Your task to perform on an android device: Open Youtube and go to the subscriptions tab Image 0: 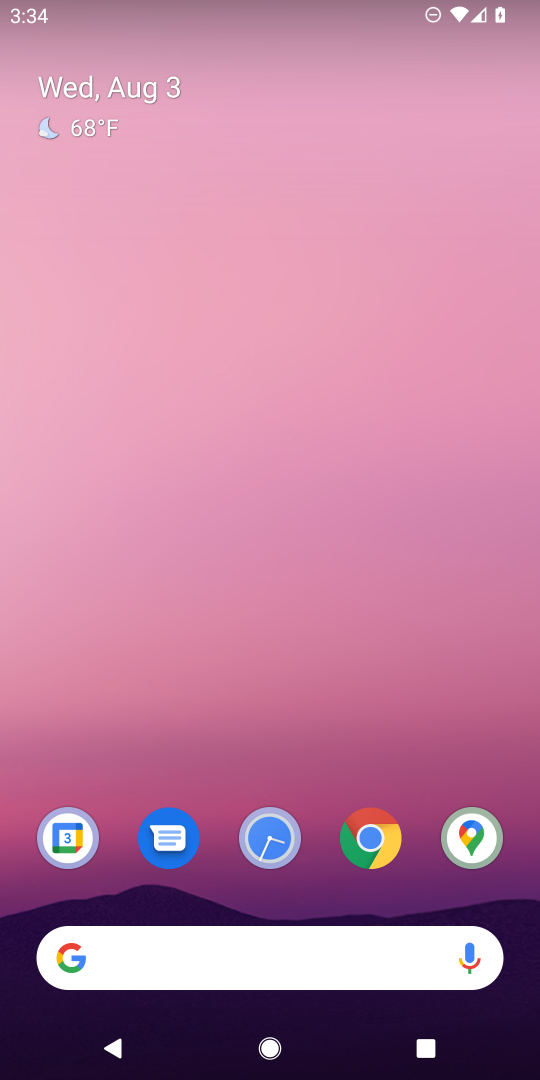
Step 0: drag from (321, 895) to (361, 422)
Your task to perform on an android device: Open Youtube and go to the subscriptions tab Image 1: 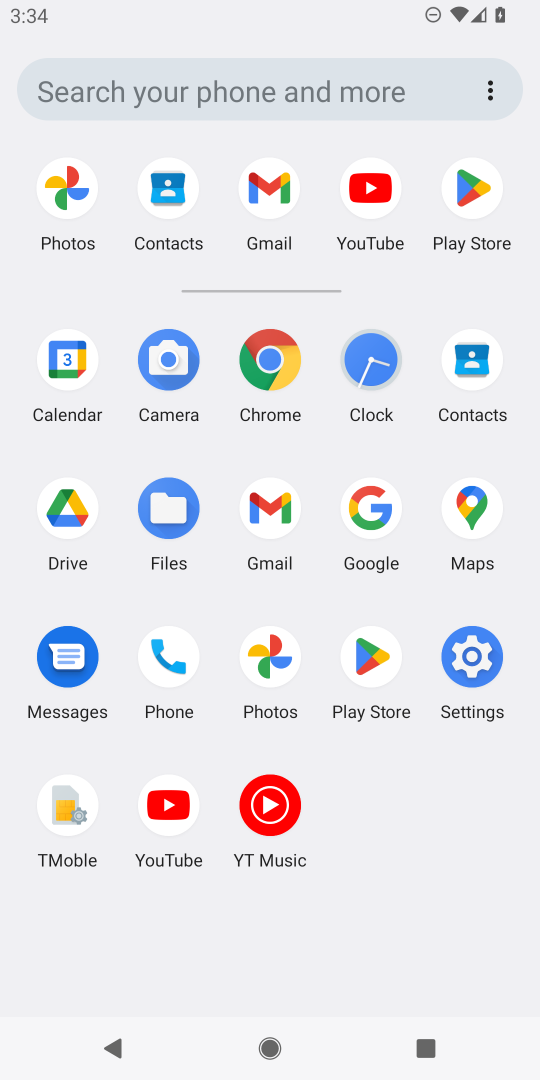
Step 1: click (167, 794)
Your task to perform on an android device: Open Youtube and go to the subscriptions tab Image 2: 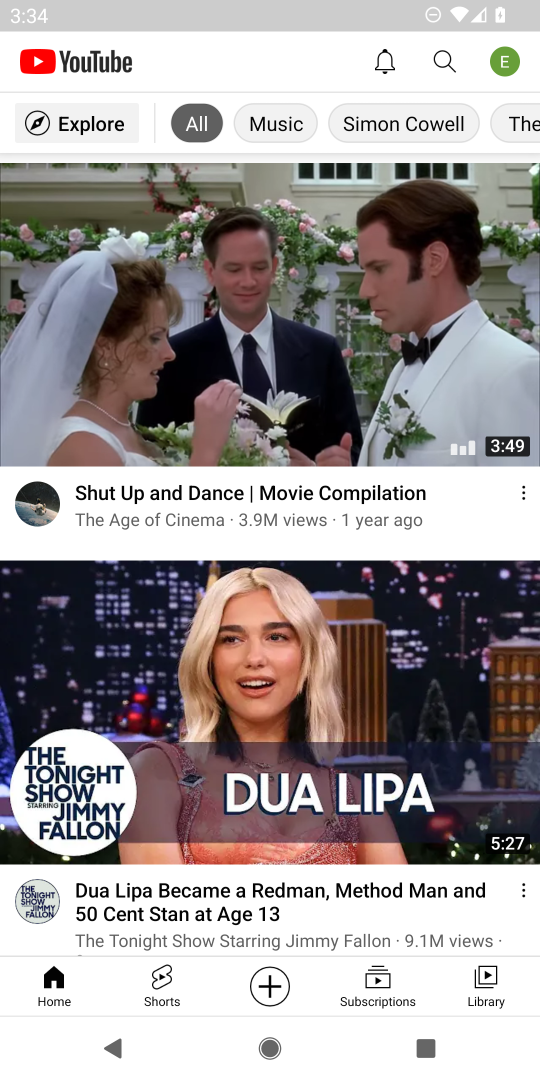
Step 2: click (383, 964)
Your task to perform on an android device: Open Youtube and go to the subscriptions tab Image 3: 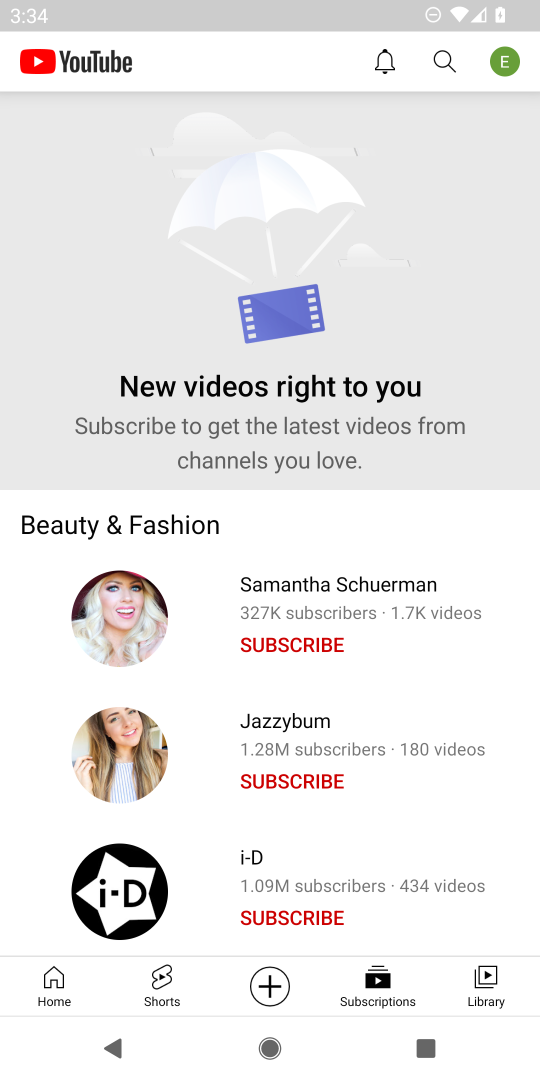
Step 3: task complete